Your task to perform on an android device: Open the Play Movies app and select the watchlist tab. Image 0: 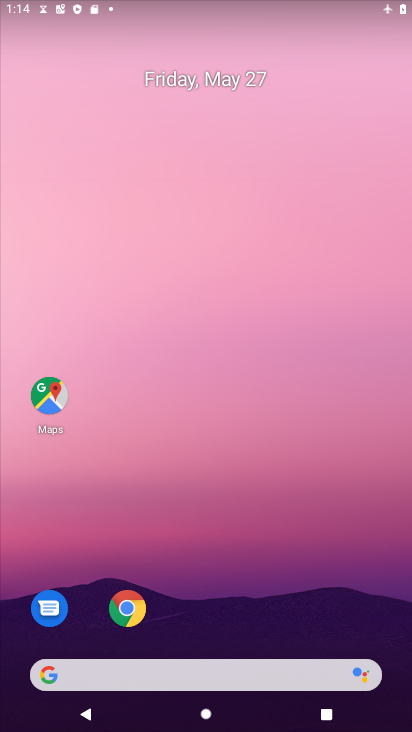
Step 0: drag from (212, 585) to (303, 76)
Your task to perform on an android device: Open the Play Movies app and select the watchlist tab. Image 1: 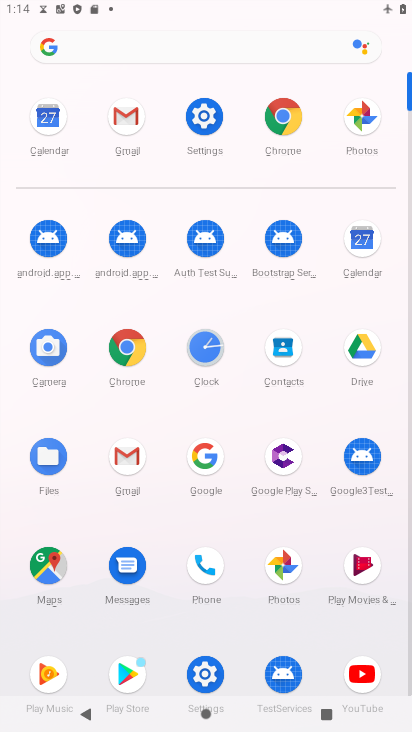
Step 1: click (355, 573)
Your task to perform on an android device: Open the Play Movies app and select the watchlist tab. Image 2: 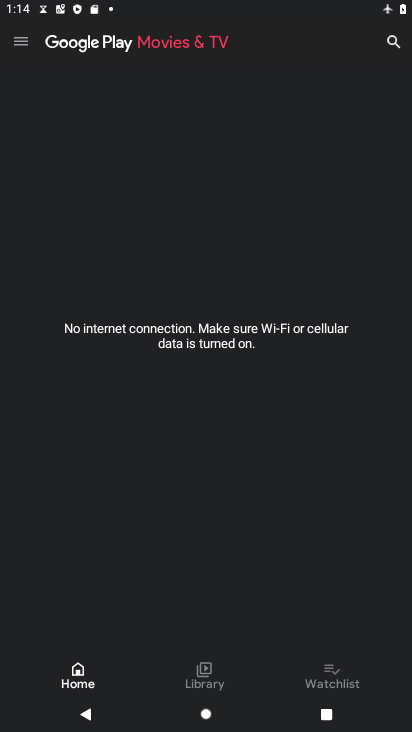
Step 2: click (345, 671)
Your task to perform on an android device: Open the Play Movies app and select the watchlist tab. Image 3: 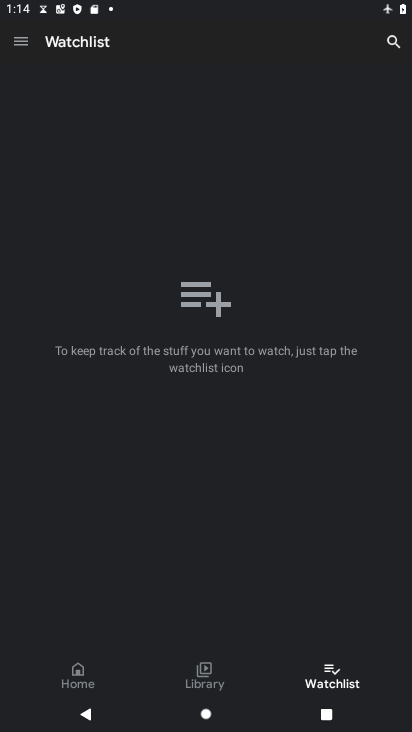
Step 3: task complete